Your task to perform on an android device: open app "VLC for Android" (install if not already installed) Image 0: 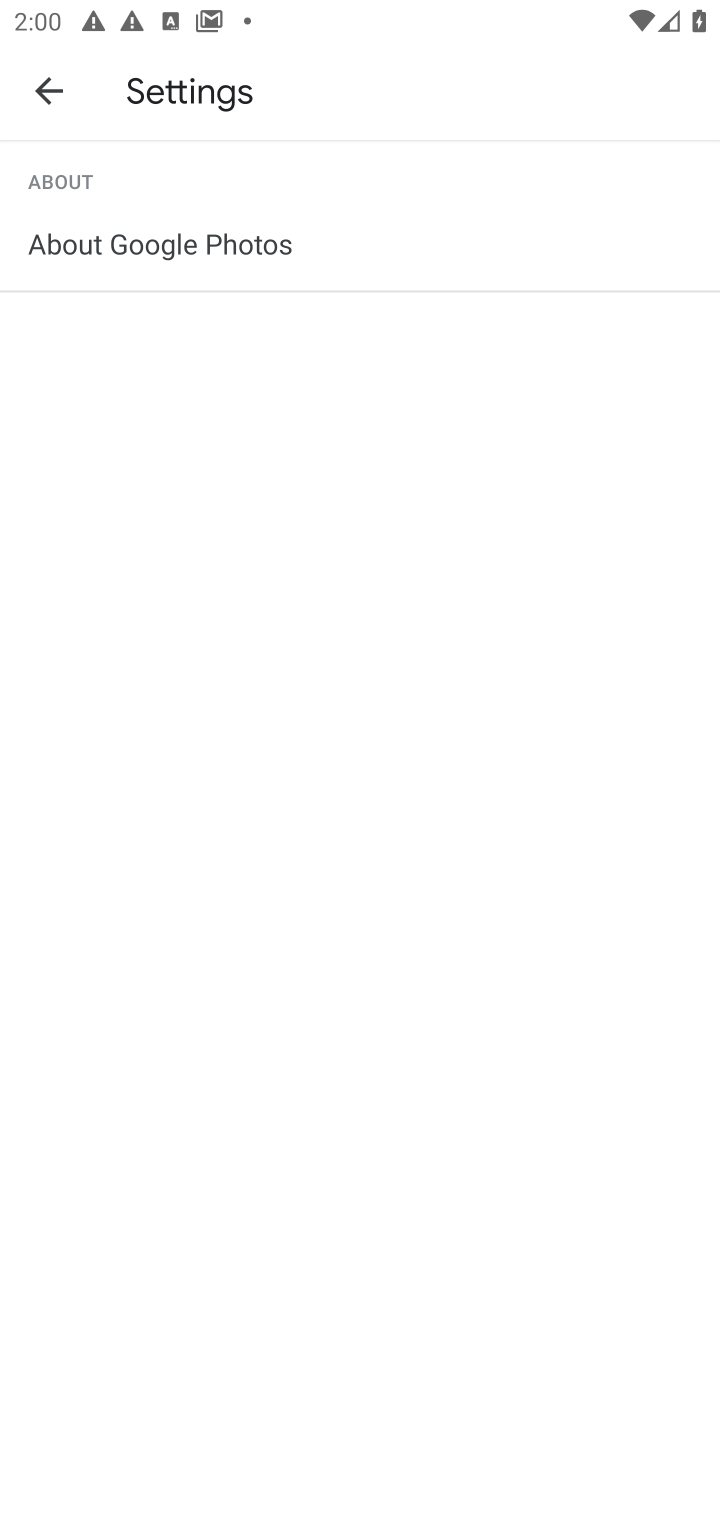
Step 0: press home button
Your task to perform on an android device: open app "VLC for Android" (install if not already installed) Image 1: 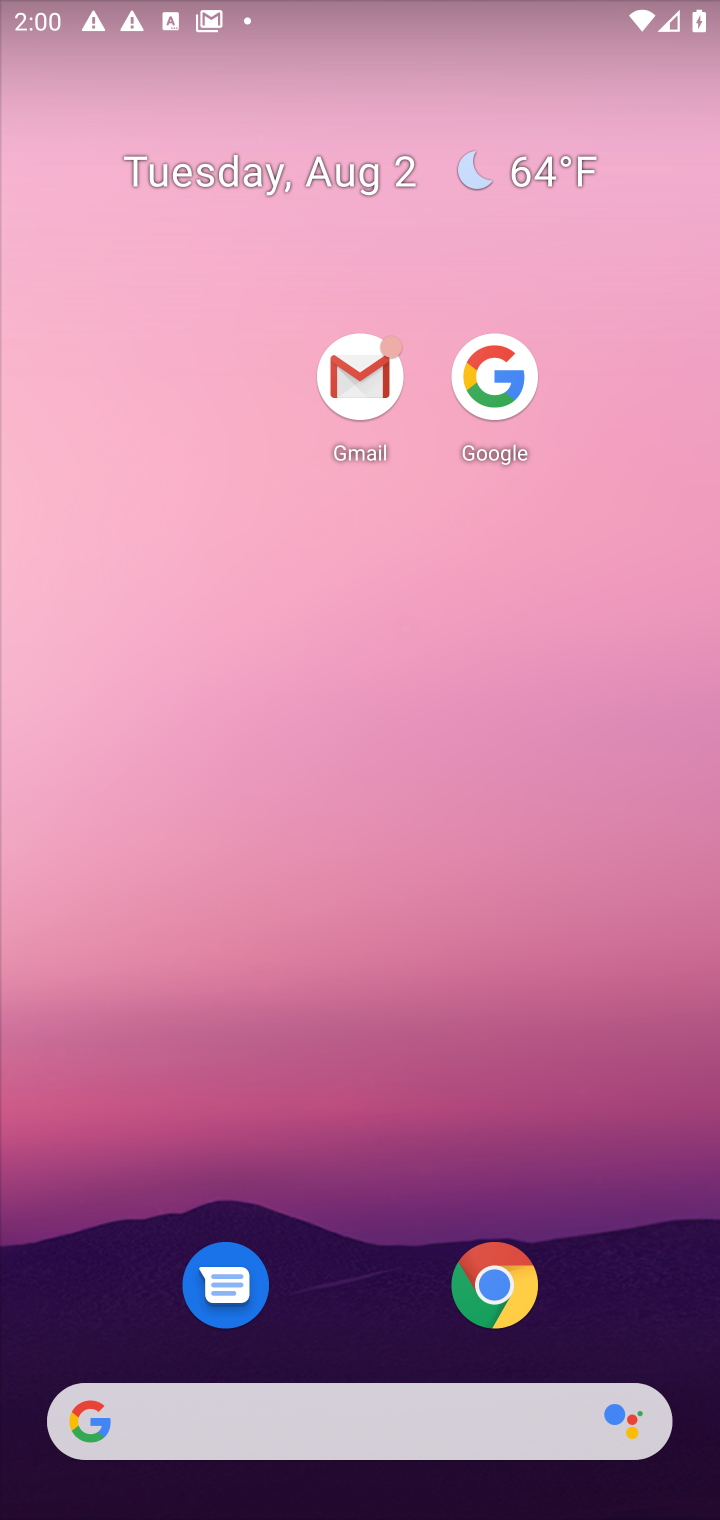
Step 1: drag from (577, 1309) to (342, 68)
Your task to perform on an android device: open app "VLC for Android" (install if not already installed) Image 2: 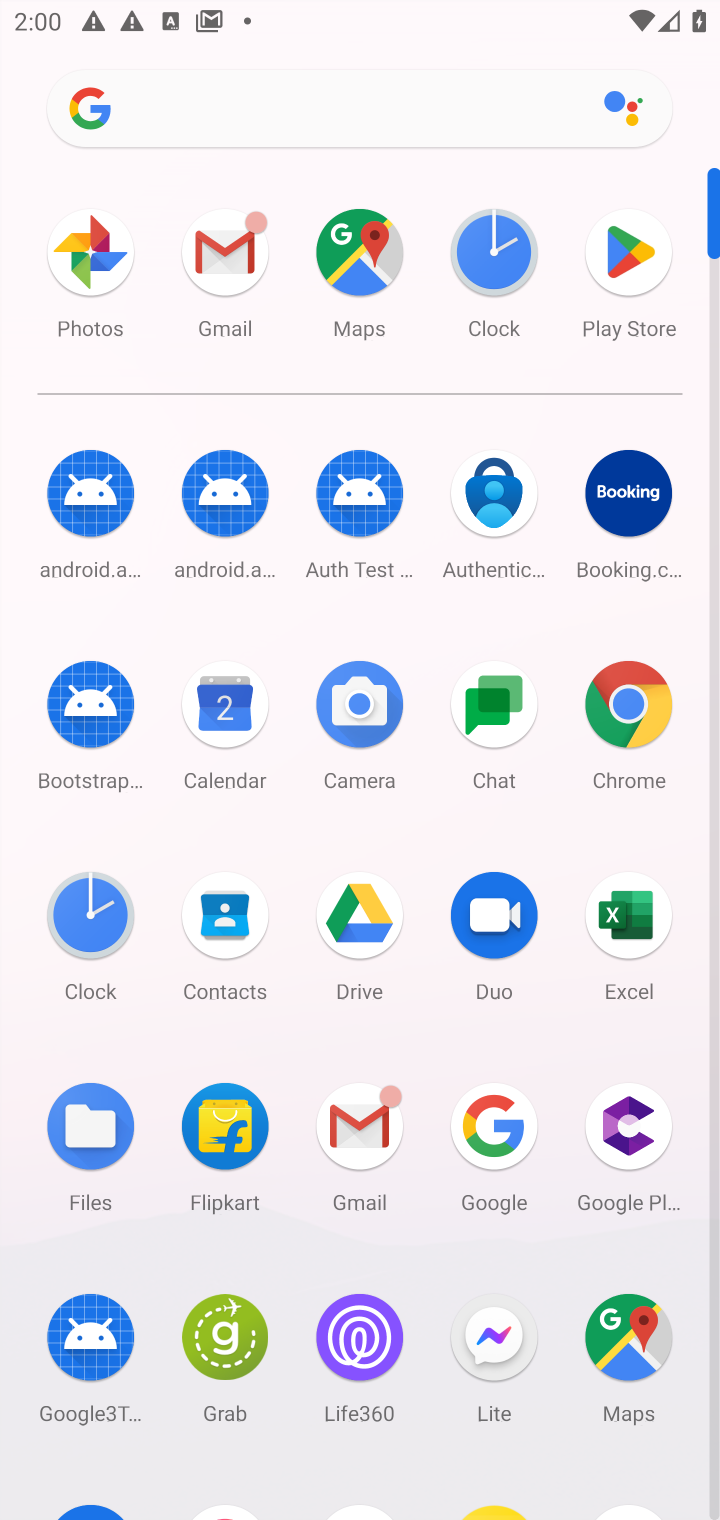
Step 2: drag from (432, 1177) to (428, 320)
Your task to perform on an android device: open app "VLC for Android" (install if not already installed) Image 3: 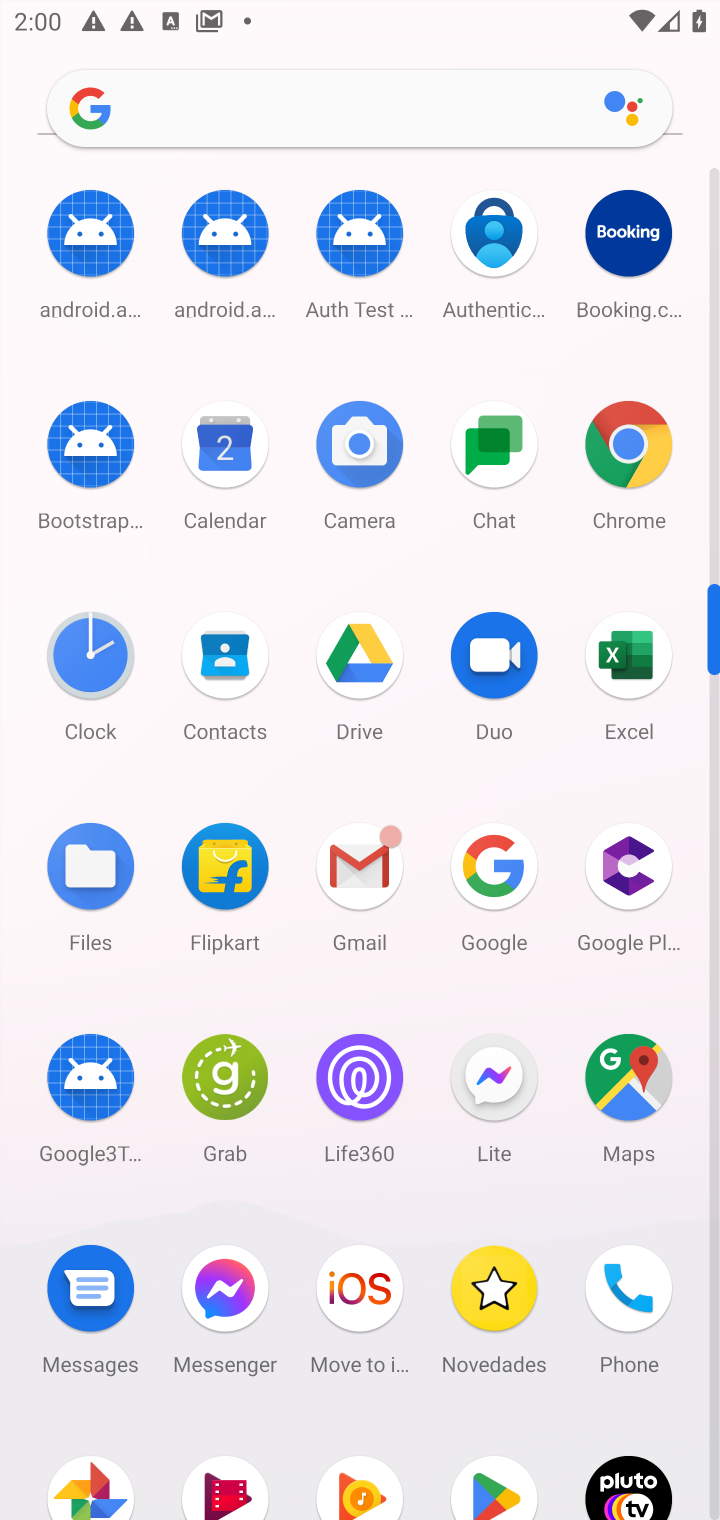
Step 3: click (488, 1505)
Your task to perform on an android device: open app "VLC for Android" (install if not already installed) Image 4: 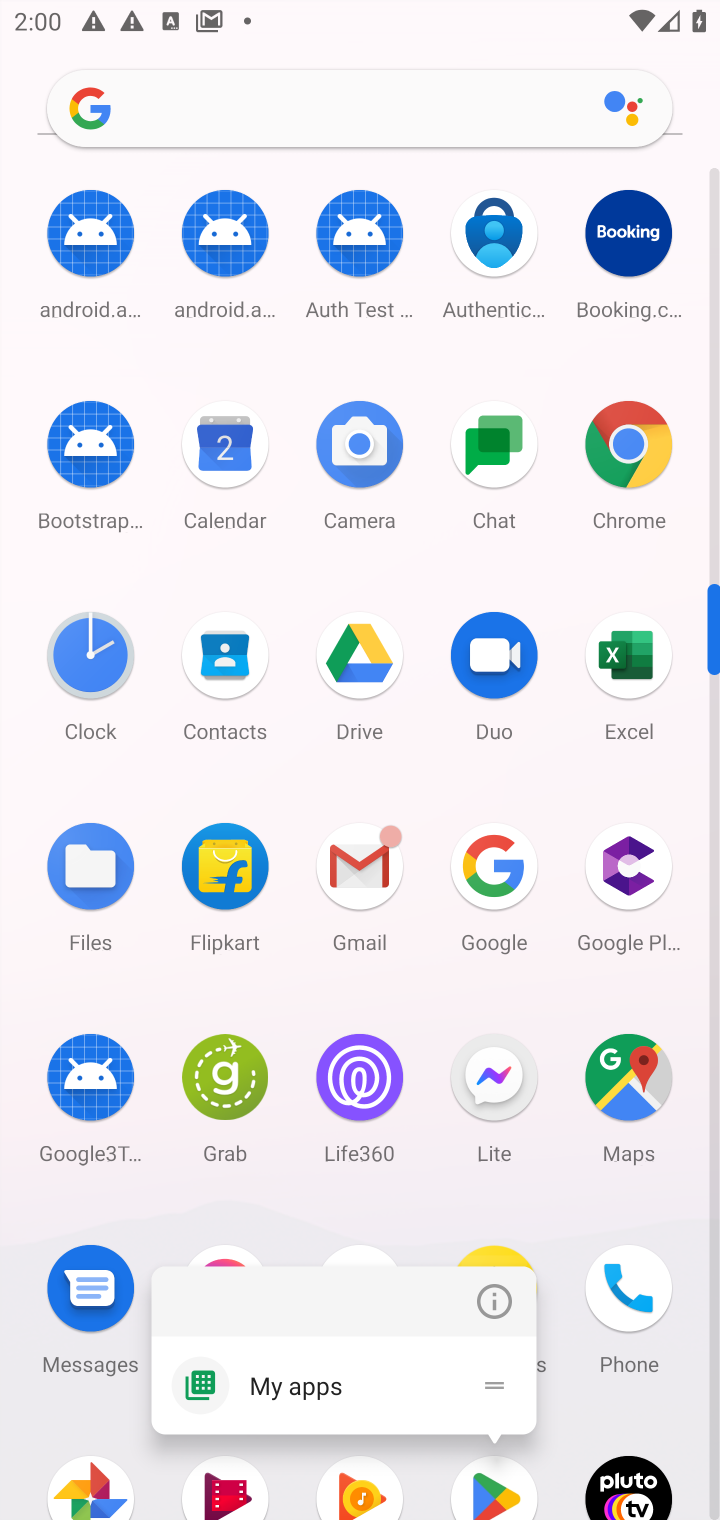
Step 4: click (497, 1501)
Your task to perform on an android device: open app "VLC for Android" (install if not already installed) Image 5: 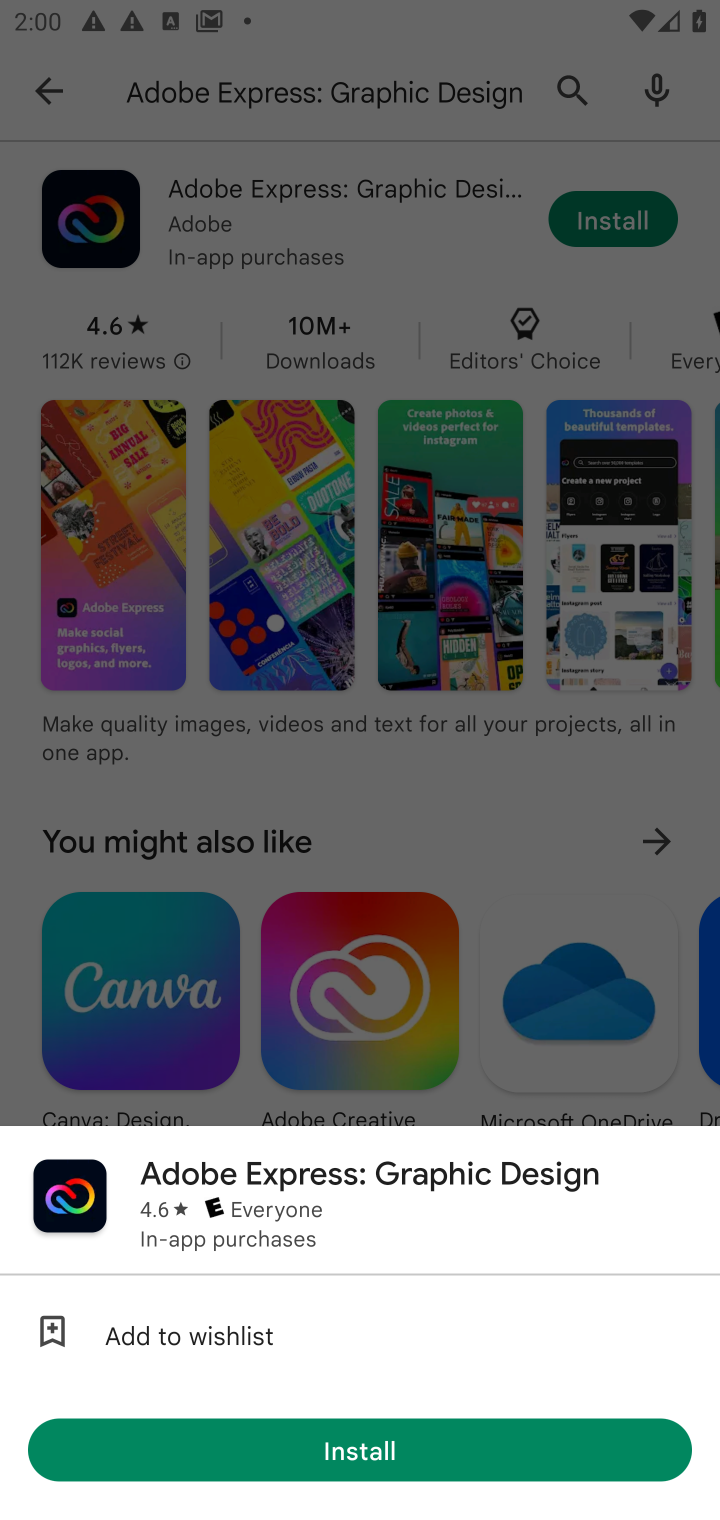
Step 5: click (351, 568)
Your task to perform on an android device: open app "VLC for Android" (install if not already installed) Image 6: 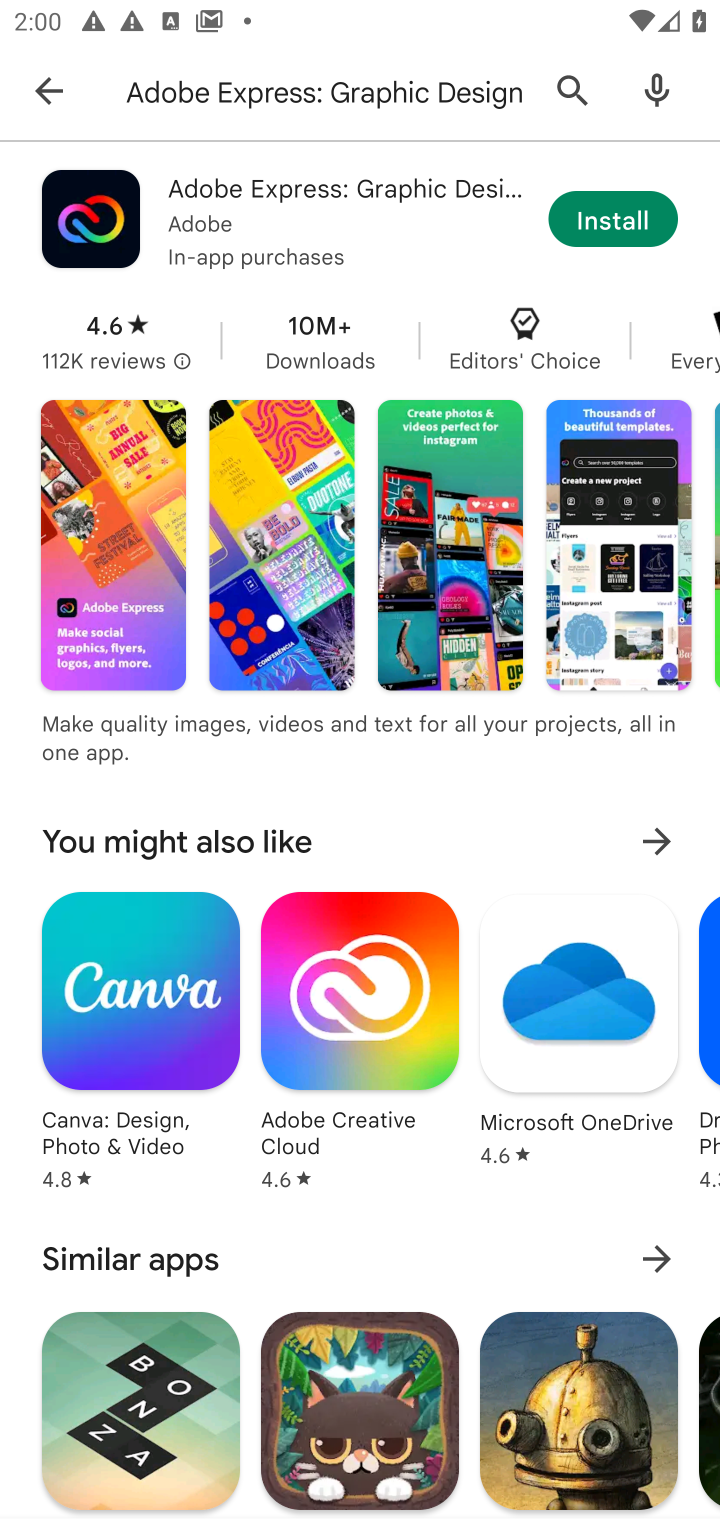
Step 6: click (346, 103)
Your task to perform on an android device: open app "VLC for Android" (install if not already installed) Image 7: 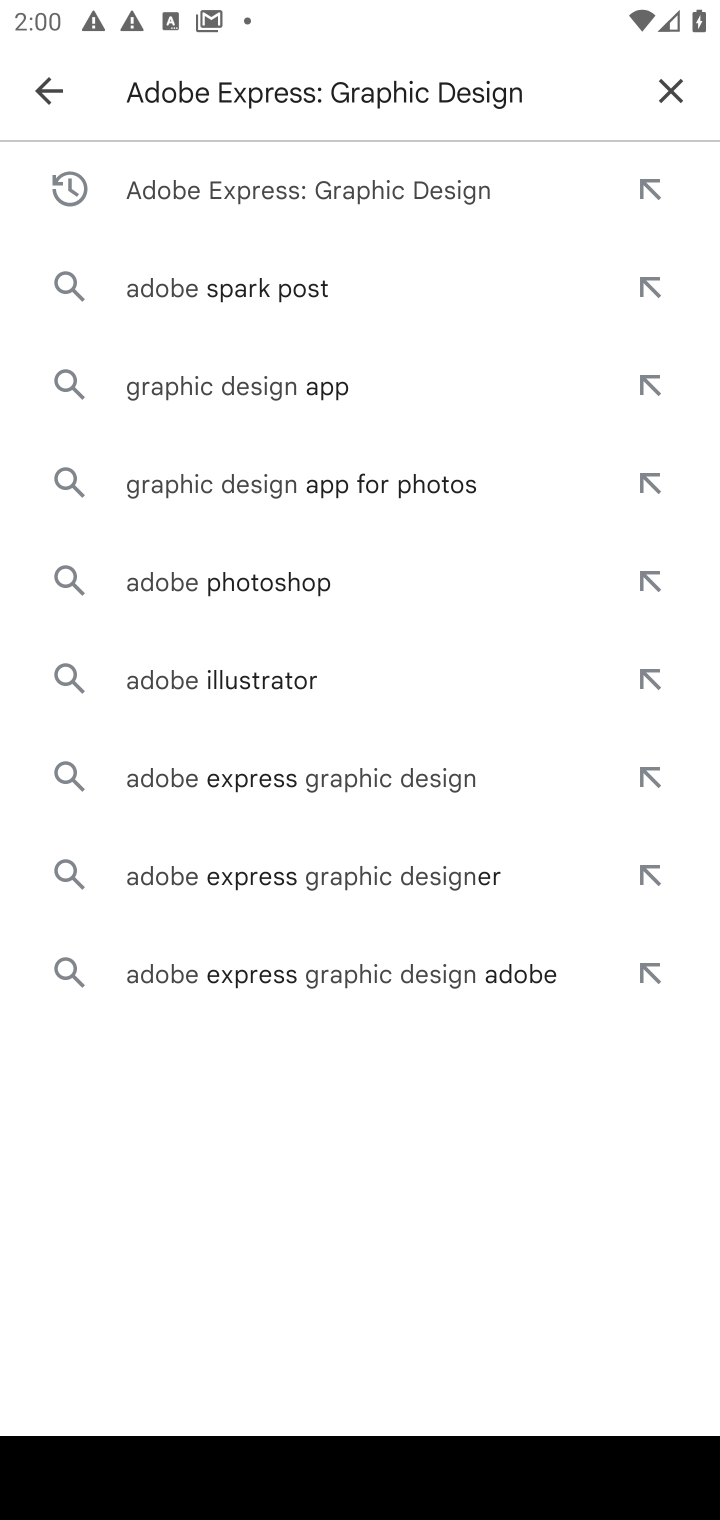
Step 7: click (654, 81)
Your task to perform on an android device: open app "VLC for Android" (install if not already installed) Image 8: 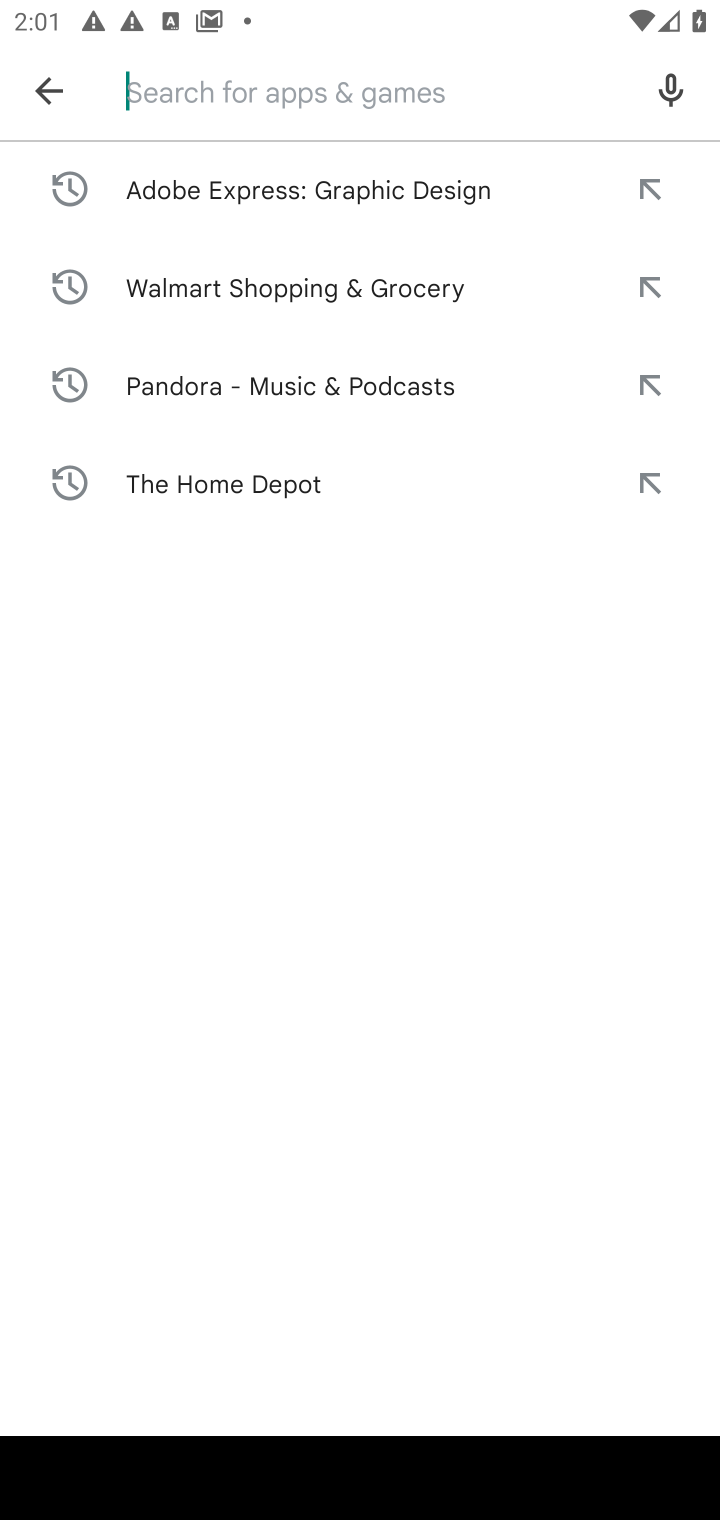
Step 8: type "VLC for Android"
Your task to perform on an android device: open app "VLC for Android" (install if not already installed) Image 9: 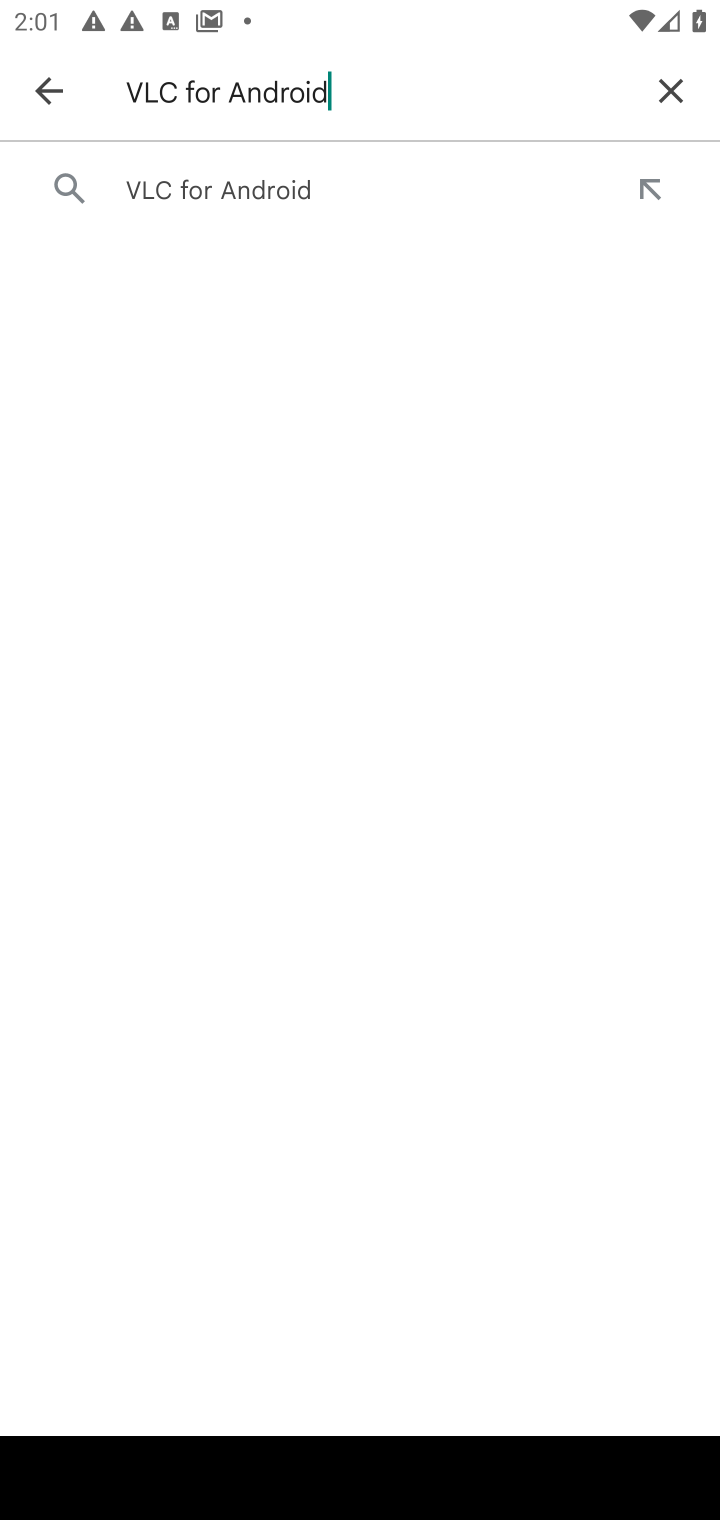
Step 9: press enter
Your task to perform on an android device: open app "VLC for Android" (install if not already installed) Image 10: 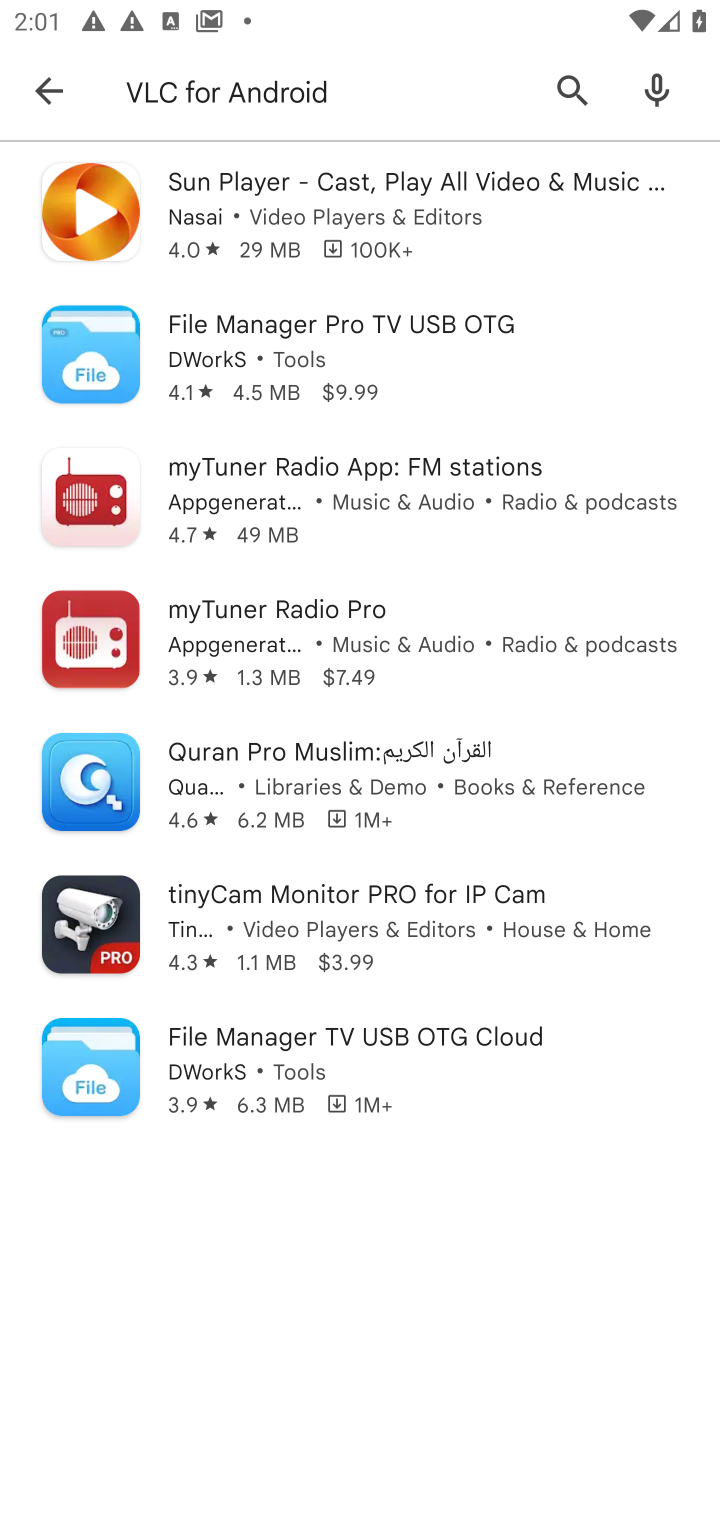
Step 10: task complete